Your task to perform on an android device: turn on showing notifications on the lock screen Image 0: 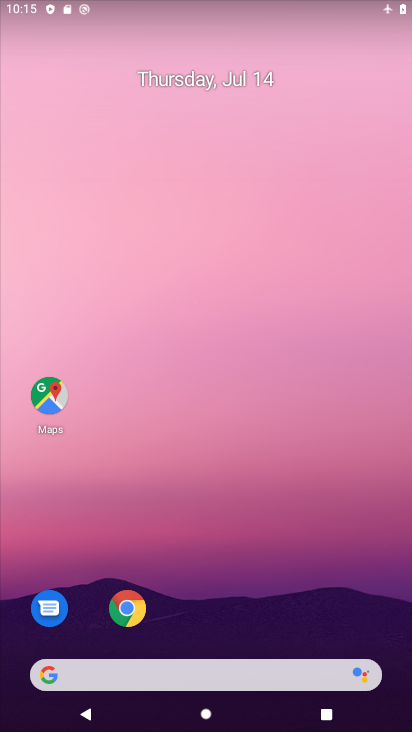
Step 0: drag from (228, 577) to (274, 8)
Your task to perform on an android device: turn on showing notifications on the lock screen Image 1: 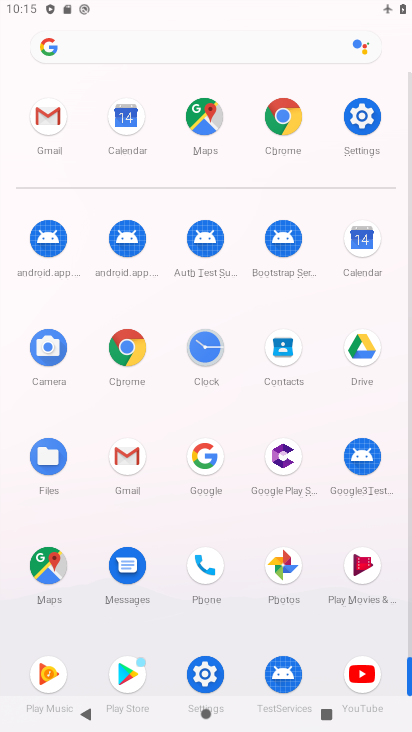
Step 1: click (365, 126)
Your task to perform on an android device: turn on showing notifications on the lock screen Image 2: 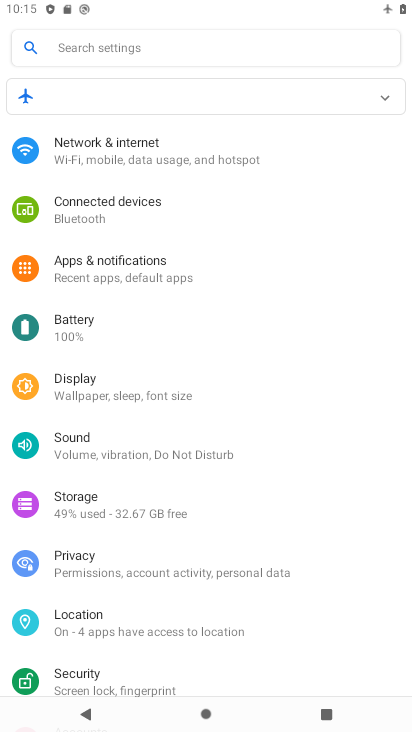
Step 2: click (143, 280)
Your task to perform on an android device: turn on showing notifications on the lock screen Image 3: 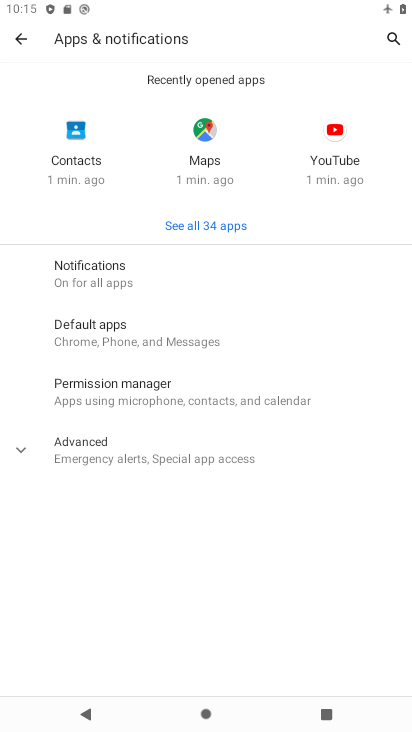
Step 3: click (123, 285)
Your task to perform on an android device: turn on showing notifications on the lock screen Image 4: 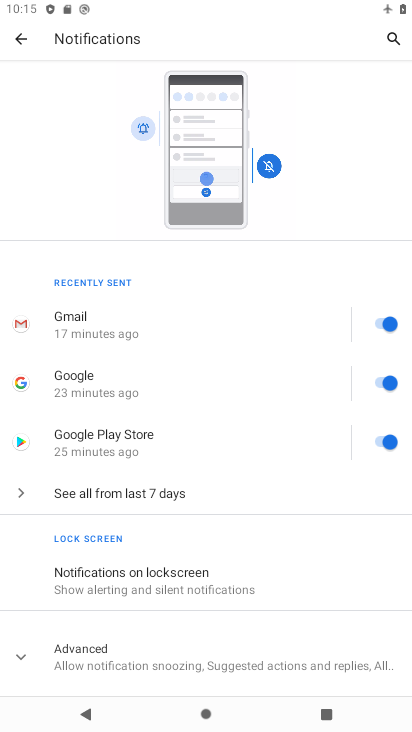
Step 4: click (144, 580)
Your task to perform on an android device: turn on showing notifications on the lock screen Image 5: 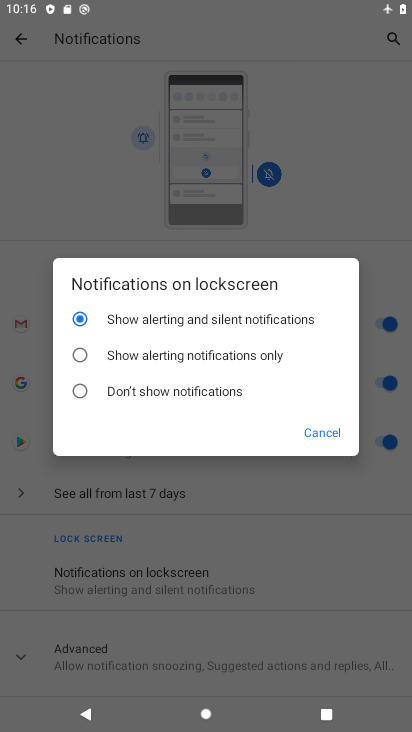
Step 5: task complete